Your task to perform on an android device: search for starred emails in the gmail app Image 0: 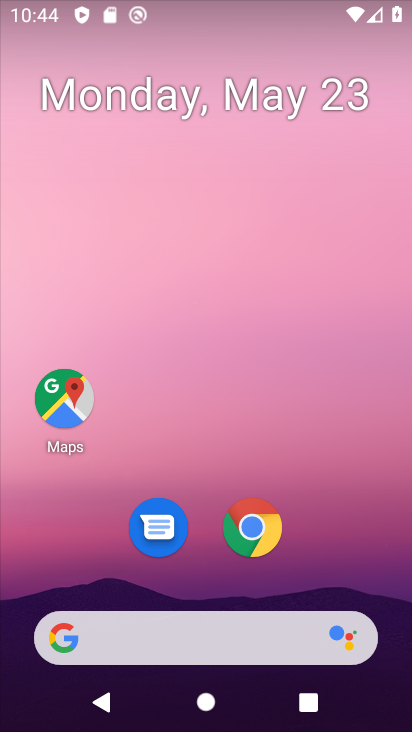
Step 0: drag from (209, 562) to (185, 0)
Your task to perform on an android device: search for starred emails in the gmail app Image 1: 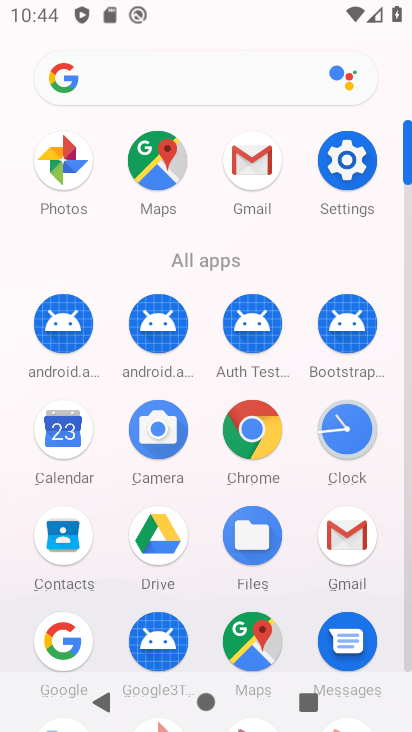
Step 1: click (350, 545)
Your task to perform on an android device: search for starred emails in the gmail app Image 2: 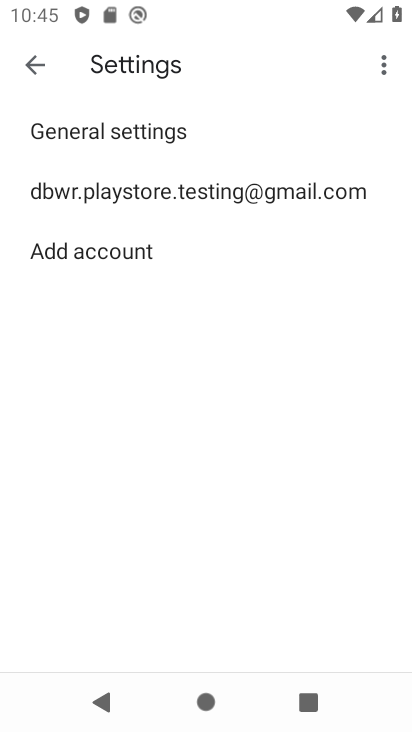
Step 2: click (43, 68)
Your task to perform on an android device: search for starred emails in the gmail app Image 3: 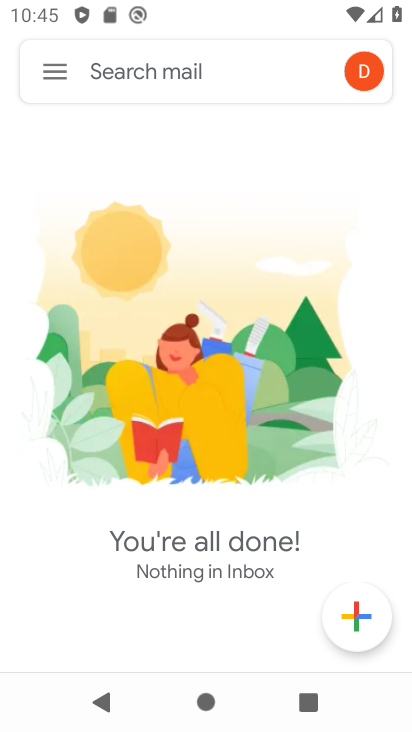
Step 3: click (53, 66)
Your task to perform on an android device: search for starred emails in the gmail app Image 4: 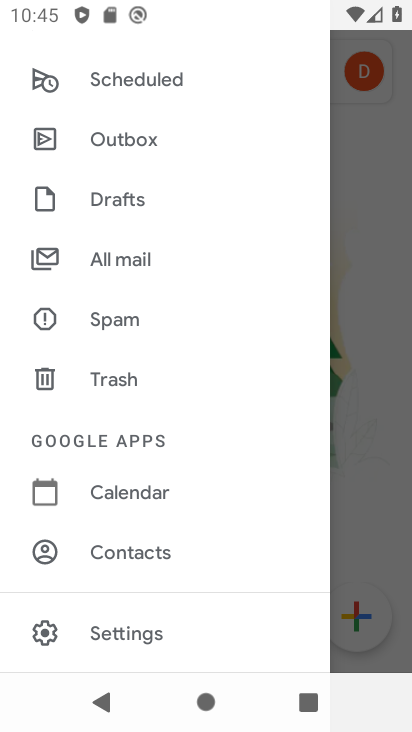
Step 4: drag from (145, 336) to (146, 625)
Your task to perform on an android device: search for starred emails in the gmail app Image 5: 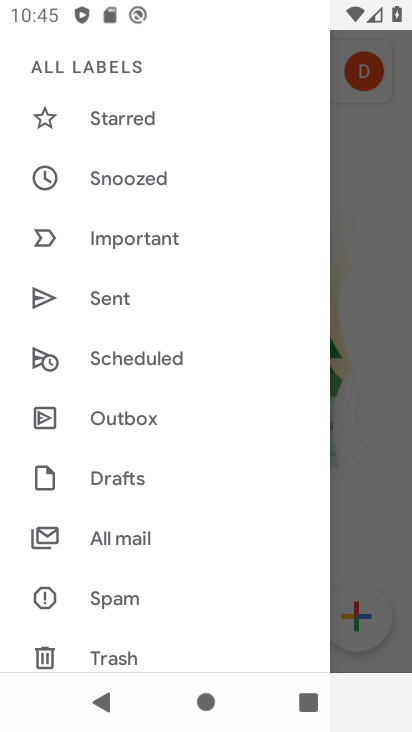
Step 5: click (121, 123)
Your task to perform on an android device: search for starred emails in the gmail app Image 6: 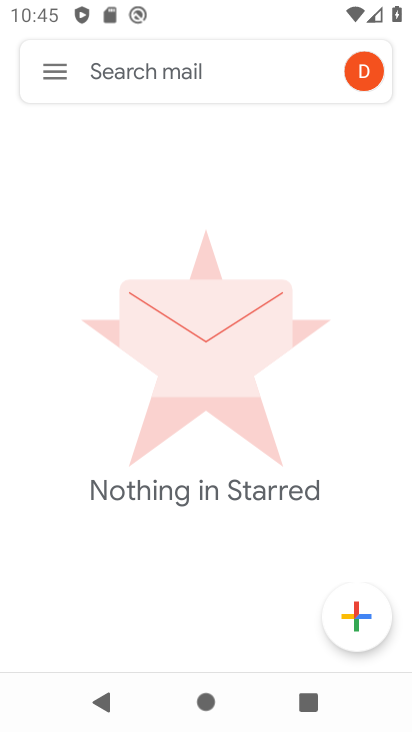
Step 6: task complete